Your task to perform on an android device: Open Android settings Image 0: 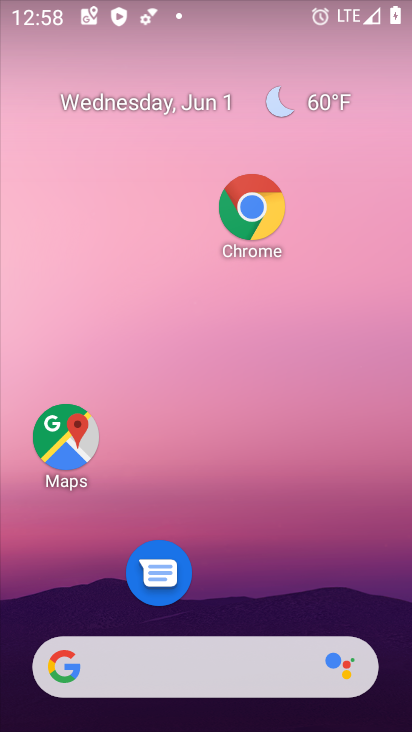
Step 0: drag from (212, 608) to (212, 151)
Your task to perform on an android device: Open Android settings Image 1: 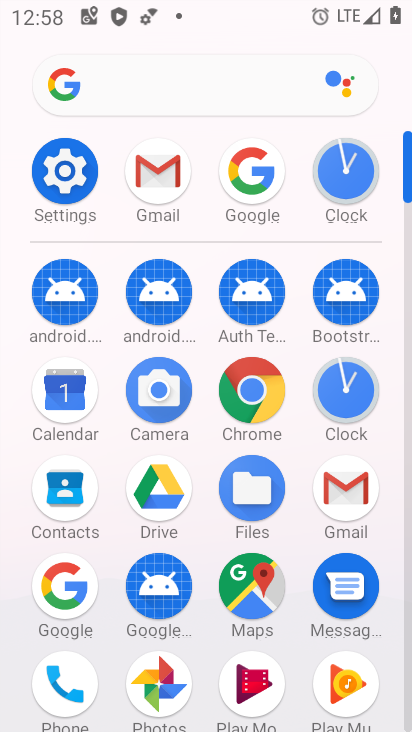
Step 1: click (85, 186)
Your task to perform on an android device: Open Android settings Image 2: 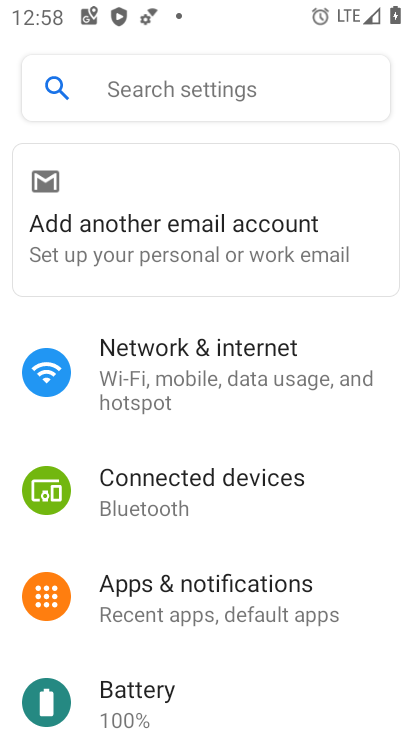
Step 2: task complete